Your task to perform on an android device: turn off sleep mode Image 0: 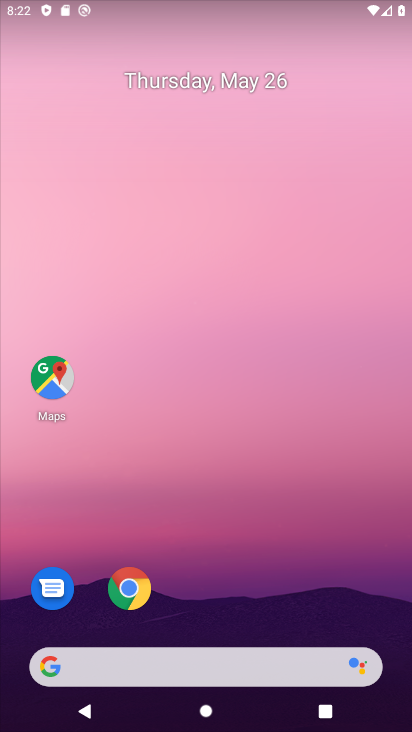
Step 0: drag from (359, 611) to (313, 18)
Your task to perform on an android device: turn off sleep mode Image 1: 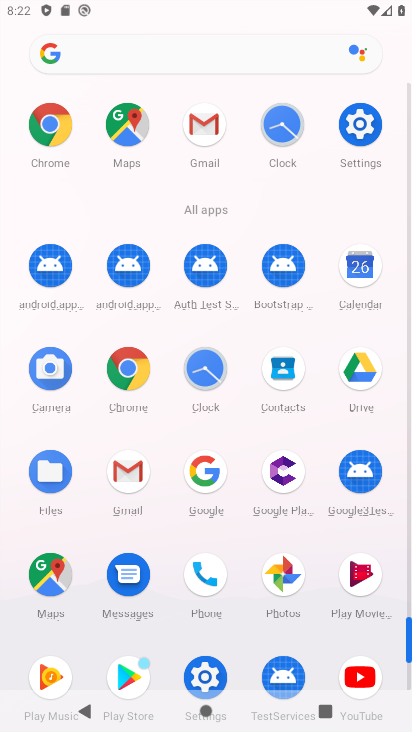
Step 1: drag from (407, 605) to (408, 556)
Your task to perform on an android device: turn off sleep mode Image 2: 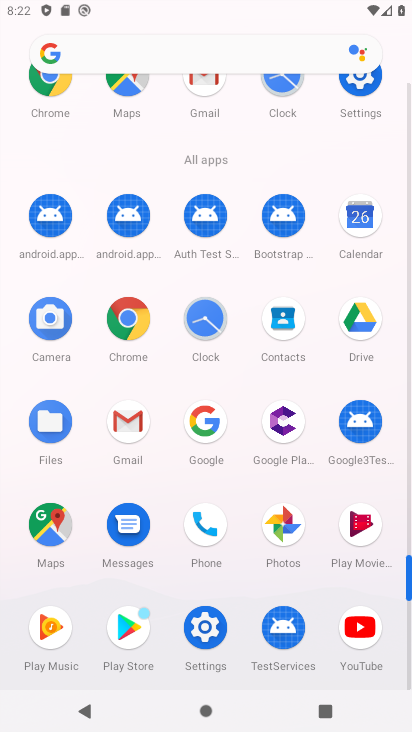
Step 2: click (204, 629)
Your task to perform on an android device: turn off sleep mode Image 3: 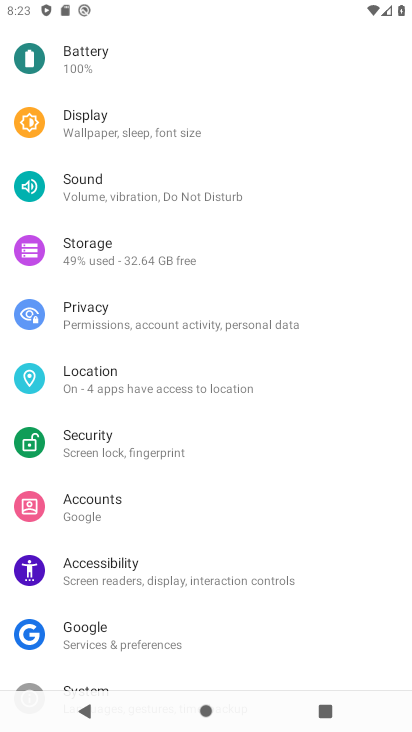
Step 3: click (91, 125)
Your task to perform on an android device: turn off sleep mode Image 4: 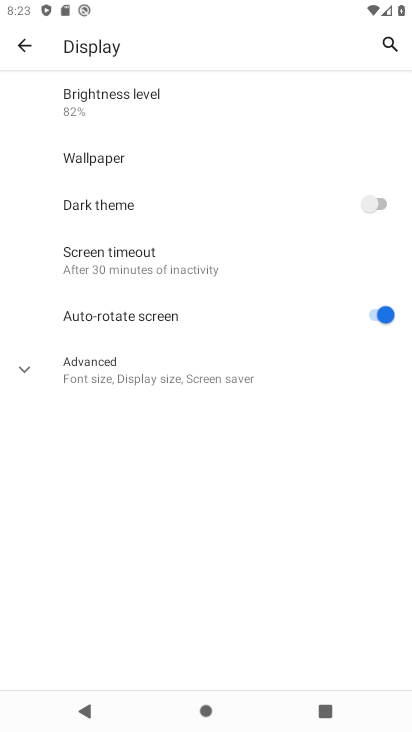
Step 4: click (29, 366)
Your task to perform on an android device: turn off sleep mode Image 5: 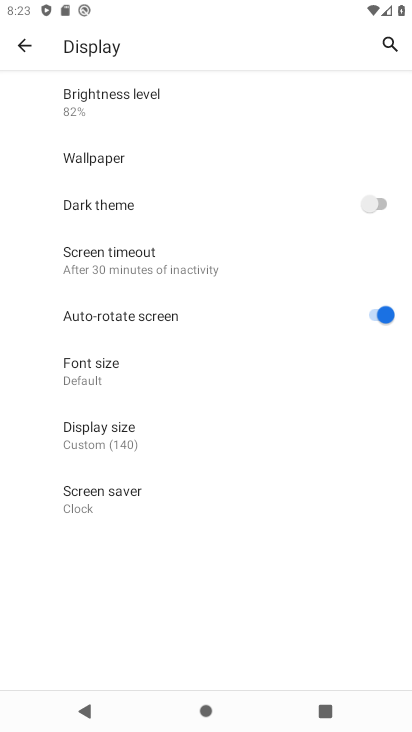
Step 5: task complete